Your task to perform on an android device: What's on my calendar today? Image 0: 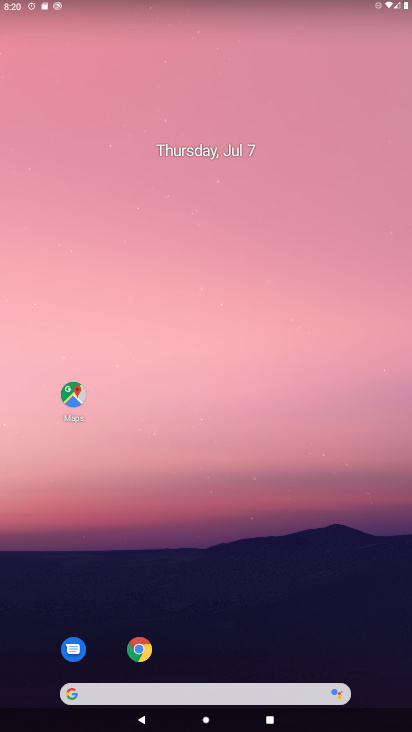
Step 0: press home button
Your task to perform on an android device: What's on my calendar today? Image 1: 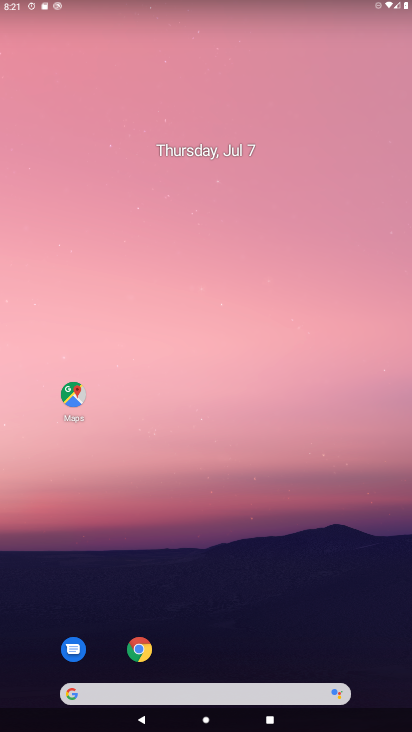
Step 1: drag from (203, 648) to (236, 148)
Your task to perform on an android device: What's on my calendar today? Image 2: 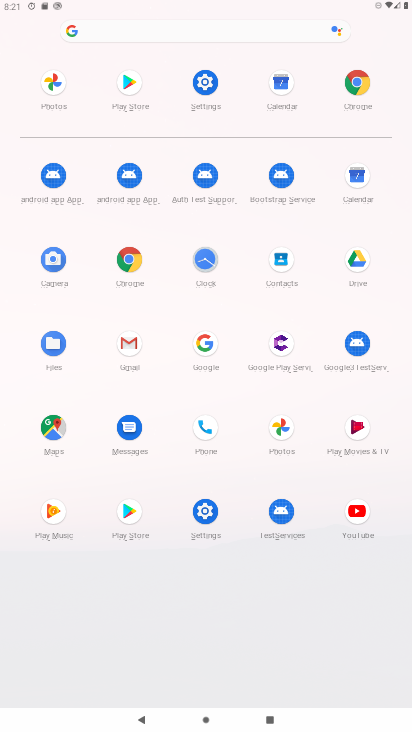
Step 2: click (363, 176)
Your task to perform on an android device: What's on my calendar today? Image 3: 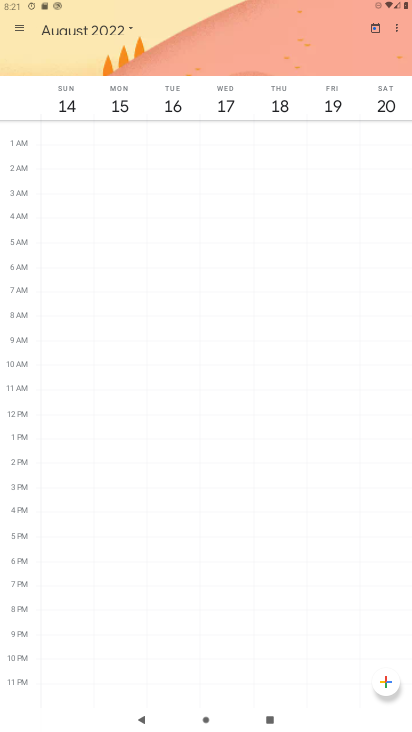
Step 3: click (107, 28)
Your task to perform on an android device: What's on my calendar today? Image 4: 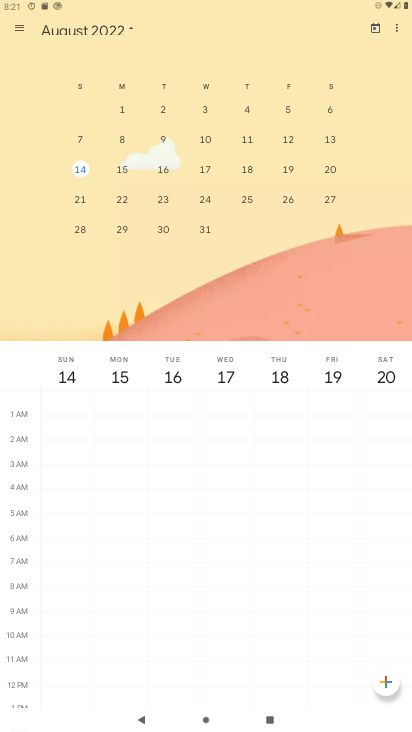
Step 4: drag from (80, 194) to (407, 186)
Your task to perform on an android device: What's on my calendar today? Image 5: 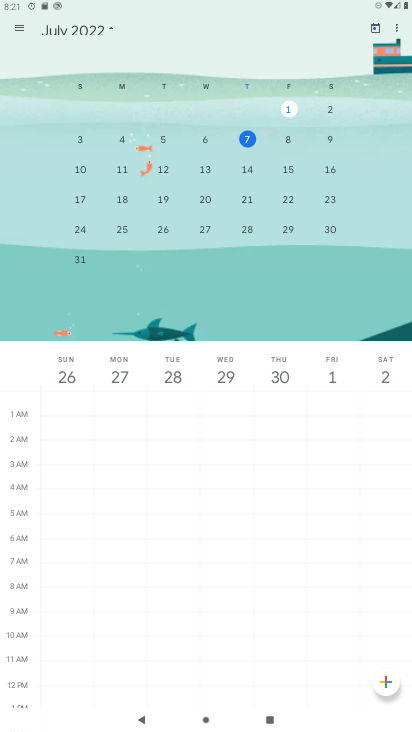
Step 5: click (244, 134)
Your task to perform on an android device: What's on my calendar today? Image 6: 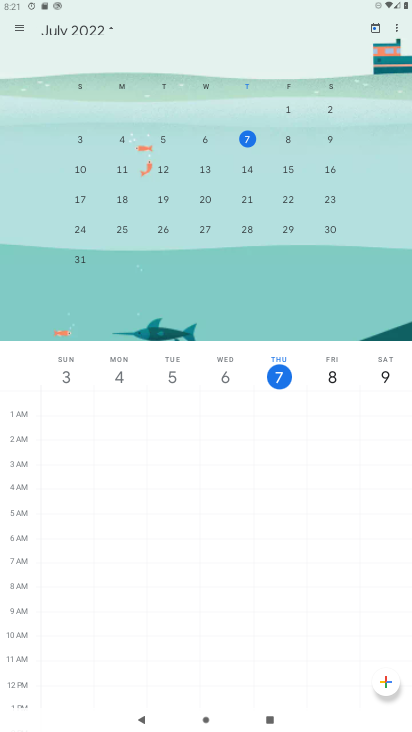
Step 6: click (279, 369)
Your task to perform on an android device: What's on my calendar today? Image 7: 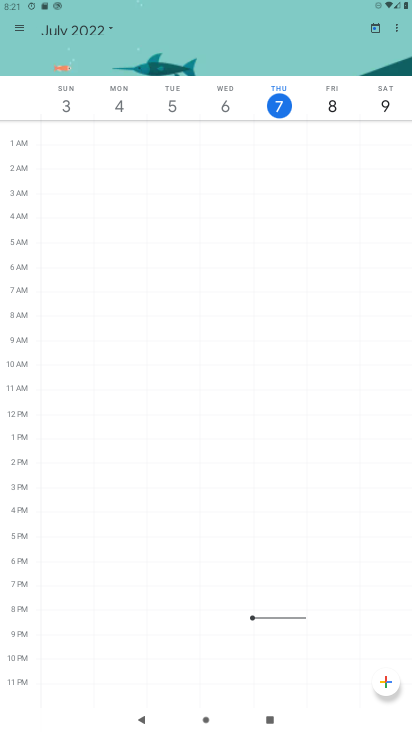
Step 7: click (280, 102)
Your task to perform on an android device: What's on my calendar today? Image 8: 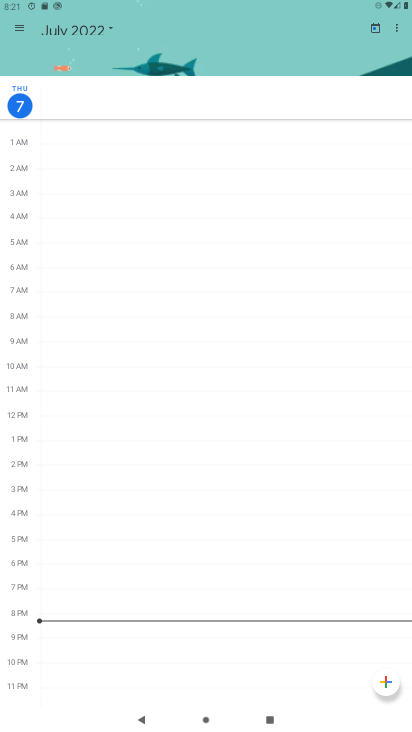
Step 8: task complete